Your task to perform on an android device: Open accessibility settings Image 0: 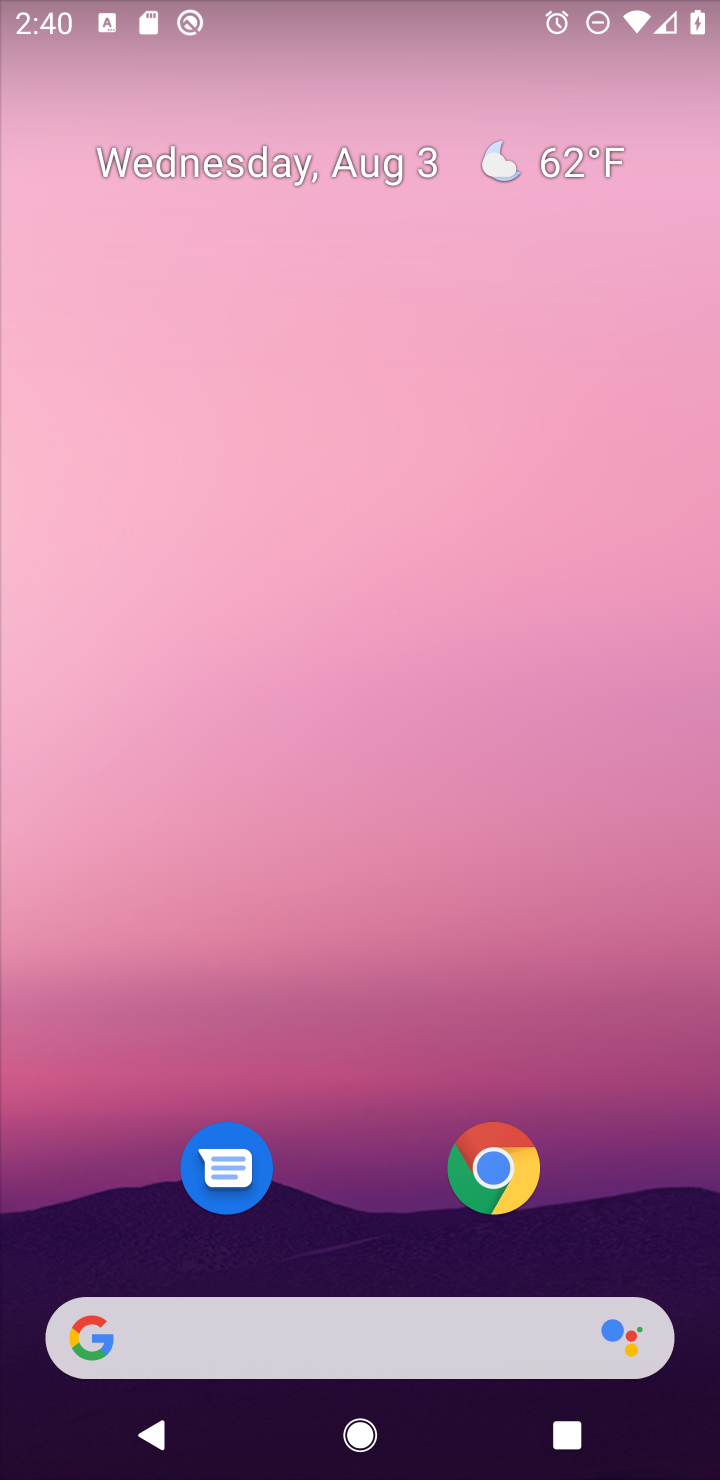
Step 0: drag from (635, 889) to (593, 269)
Your task to perform on an android device: Open accessibility settings Image 1: 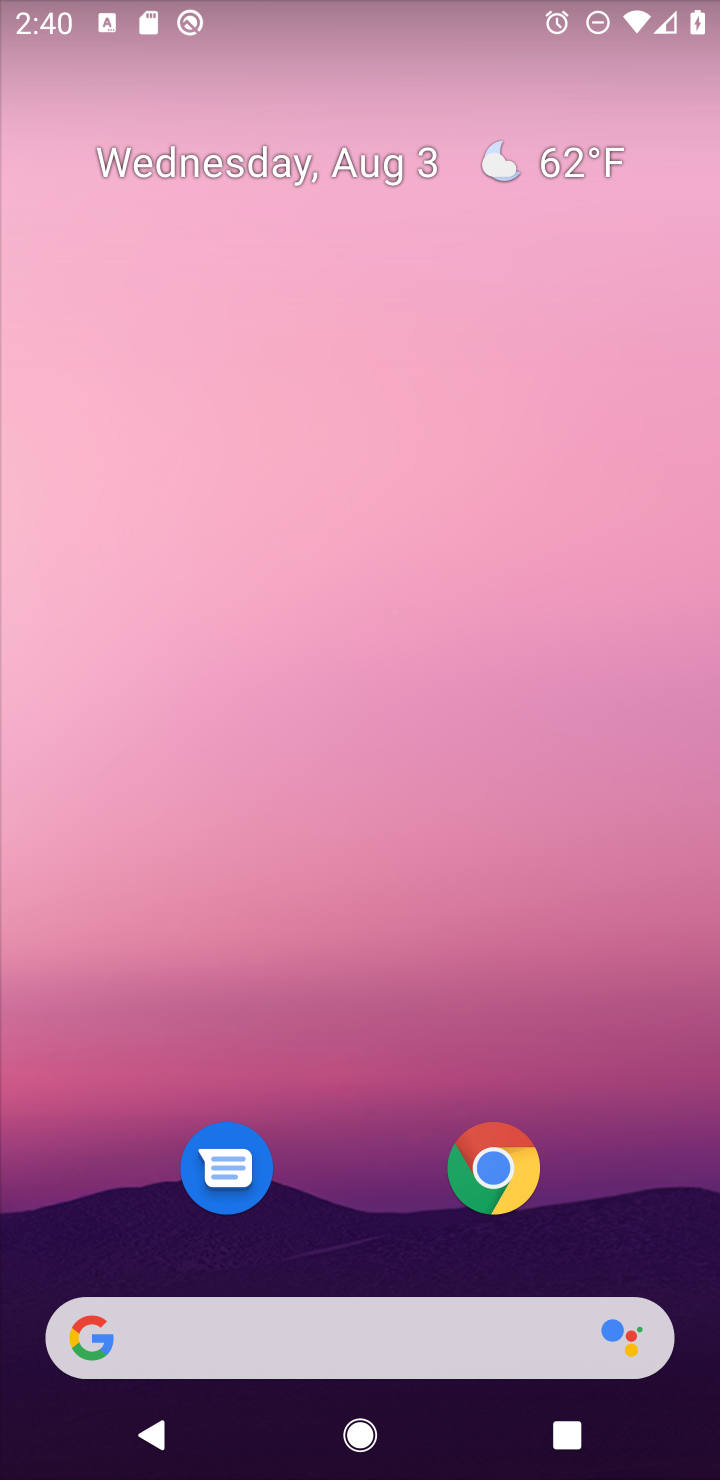
Step 1: drag from (650, 1224) to (609, 143)
Your task to perform on an android device: Open accessibility settings Image 2: 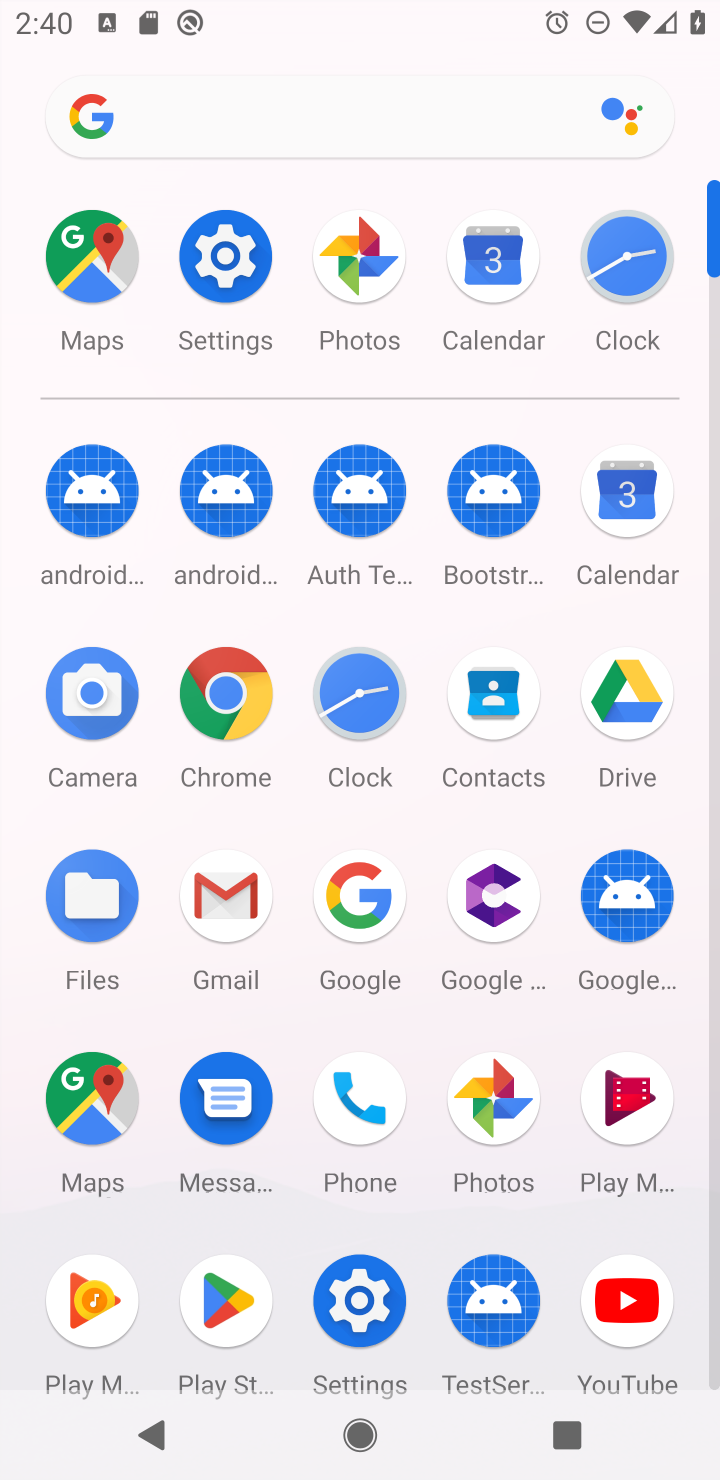
Step 2: click (355, 1298)
Your task to perform on an android device: Open accessibility settings Image 3: 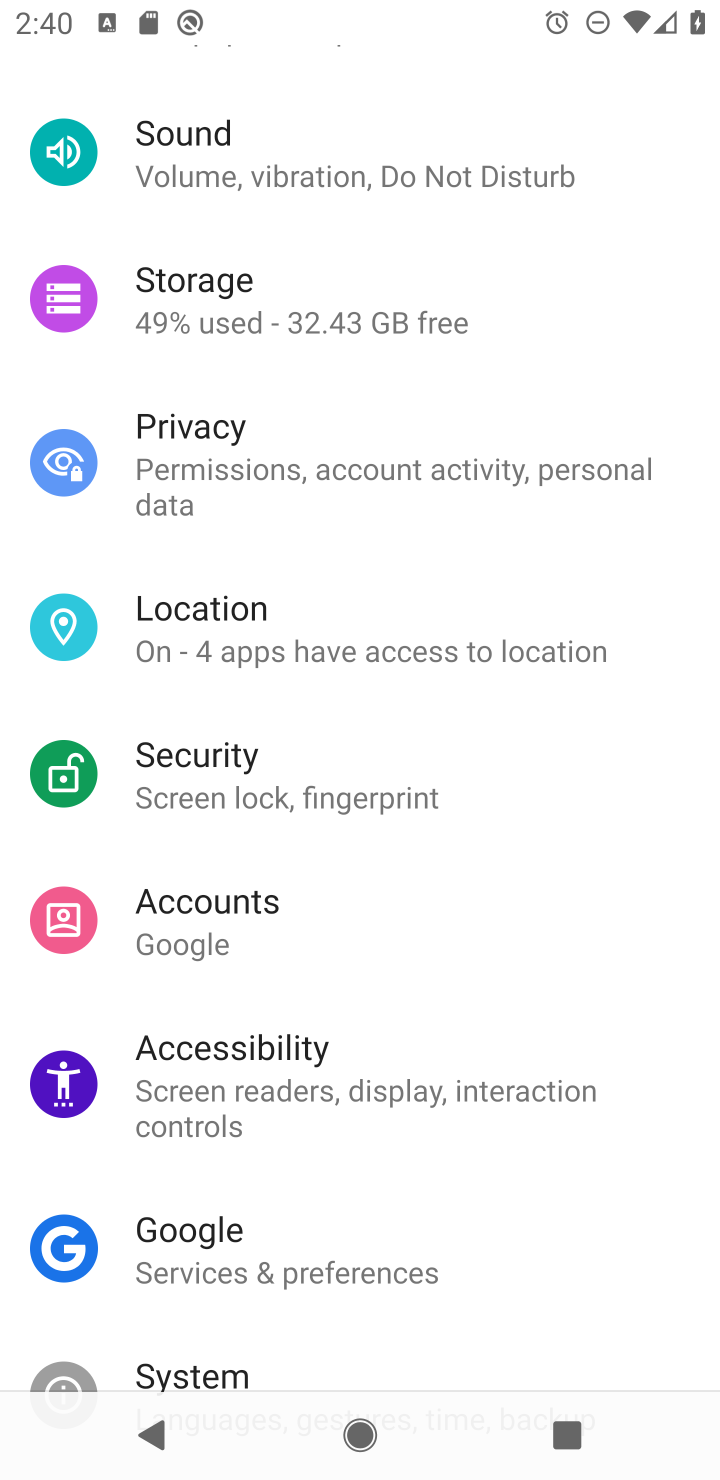
Step 3: click (190, 1064)
Your task to perform on an android device: Open accessibility settings Image 4: 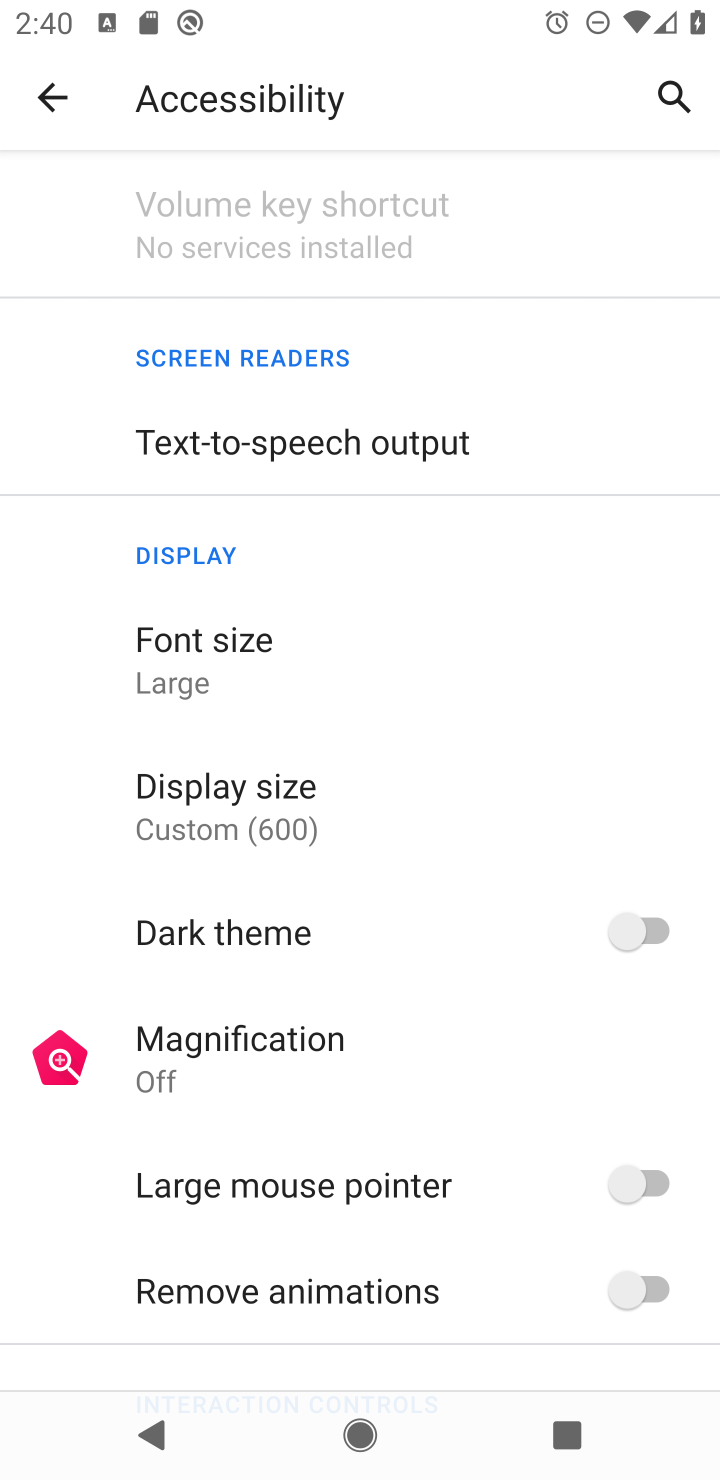
Step 4: task complete